Your task to perform on an android device: Open Google Maps and go to "Timeline" Image 0: 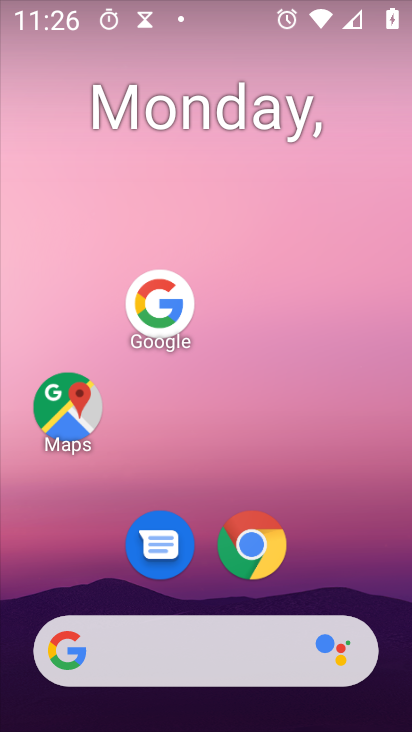
Step 0: click (71, 427)
Your task to perform on an android device: Open Google Maps and go to "Timeline" Image 1: 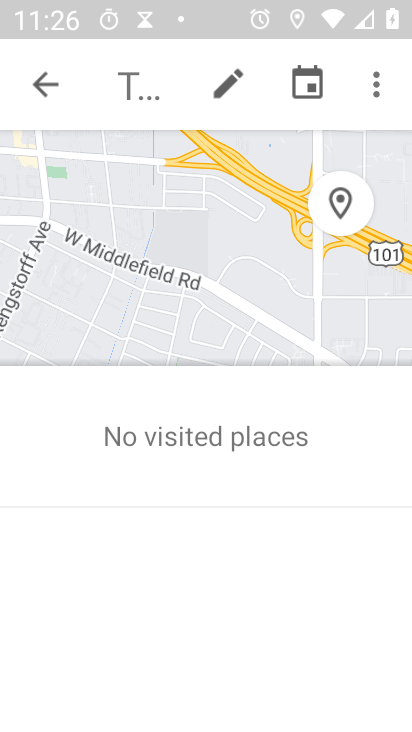
Step 1: click (46, 81)
Your task to perform on an android device: Open Google Maps and go to "Timeline" Image 2: 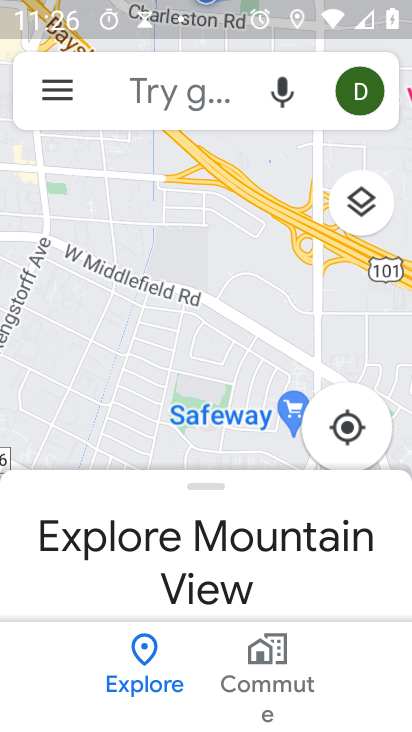
Step 2: click (54, 84)
Your task to perform on an android device: Open Google Maps and go to "Timeline" Image 3: 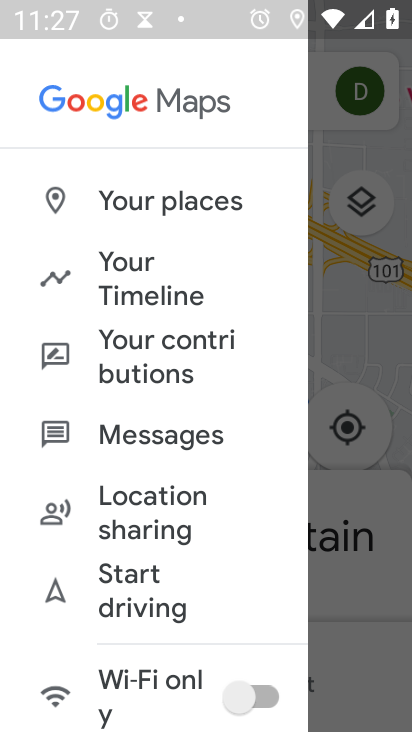
Step 3: click (107, 273)
Your task to perform on an android device: Open Google Maps and go to "Timeline" Image 4: 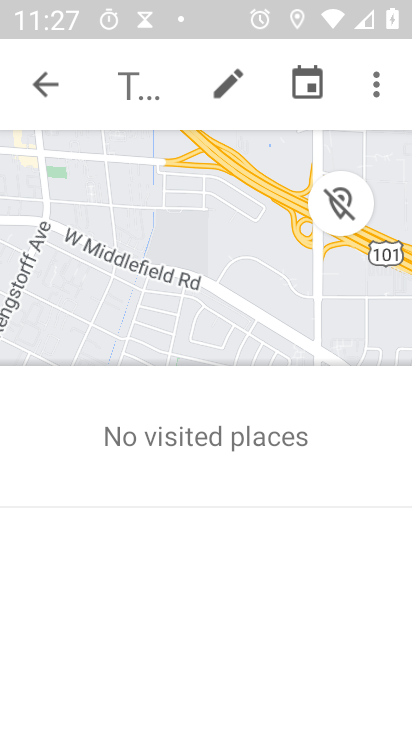
Step 4: task complete